Your task to perform on an android device: turn pop-ups on in chrome Image 0: 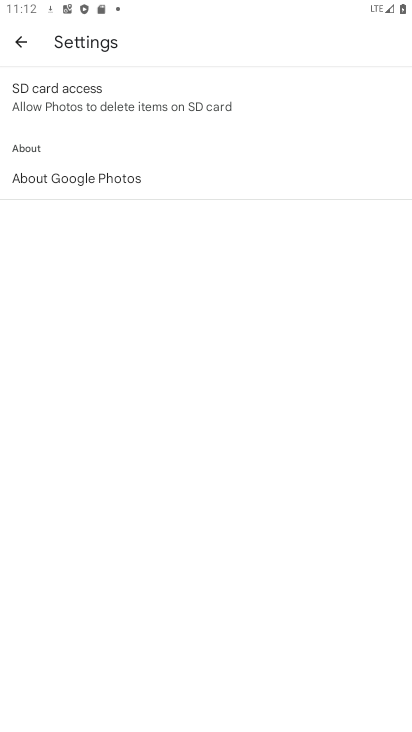
Step 0: press home button
Your task to perform on an android device: turn pop-ups on in chrome Image 1: 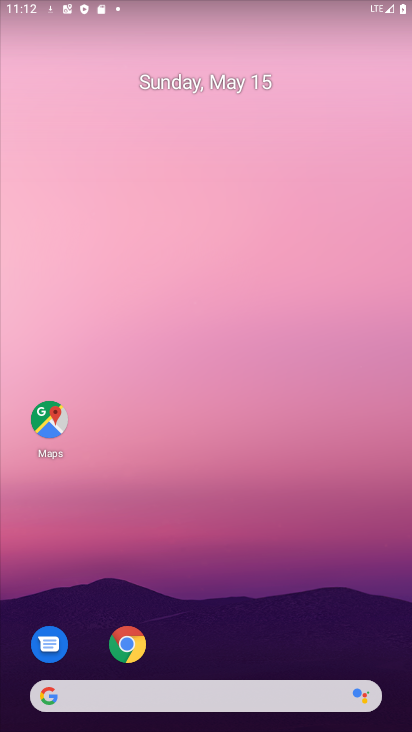
Step 1: drag from (186, 717) to (184, 329)
Your task to perform on an android device: turn pop-ups on in chrome Image 2: 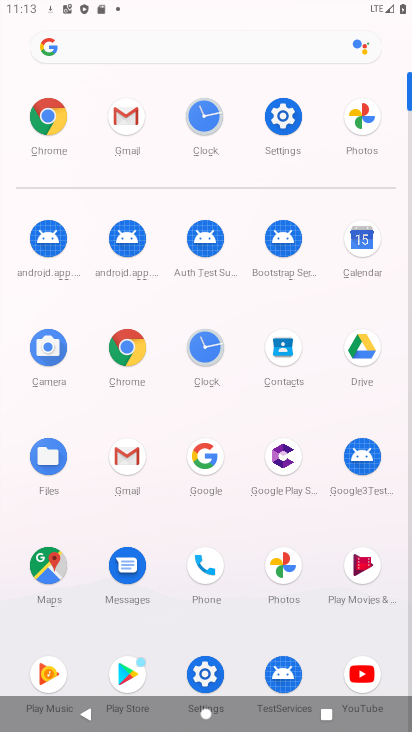
Step 2: click (129, 350)
Your task to perform on an android device: turn pop-ups on in chrome Image 3: 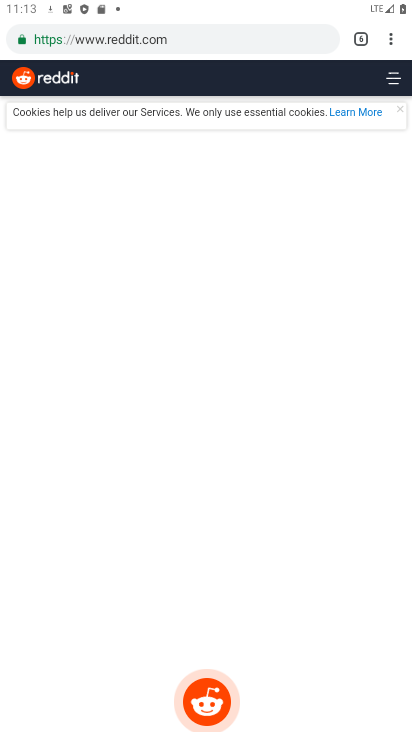
Step 3: click (397, 40)
Your task to perform on an android device: turn pop-ups on in chrome Image 4: 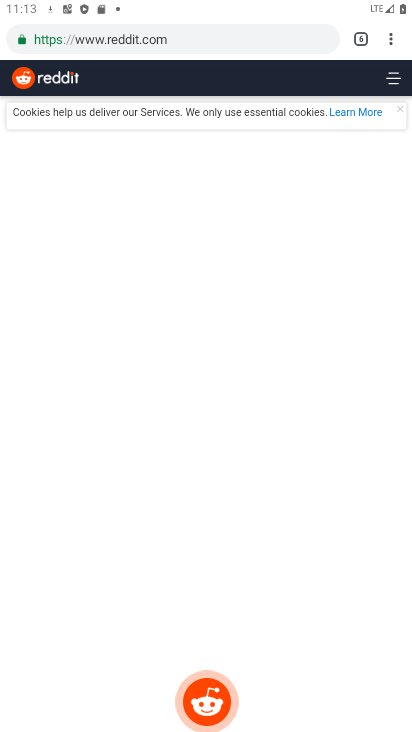
Step 4: click (385, 50)
Your task to perform on an android device: turn pop-ups on in chrome Image 5: 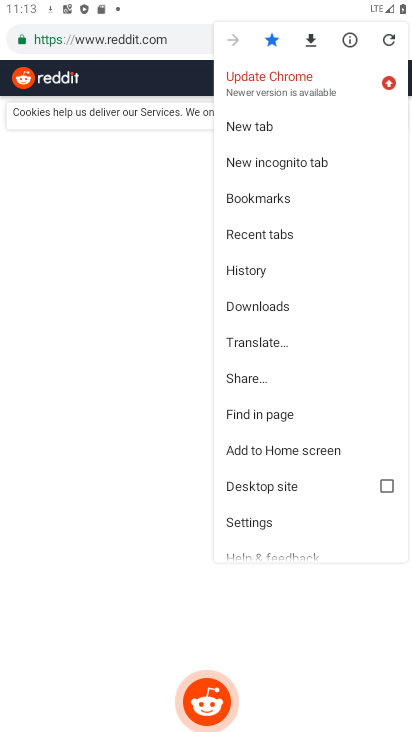
Step 5: click (261, 519)
Your task to perform on an android device: turn pop-ups on in chrome Image 6: 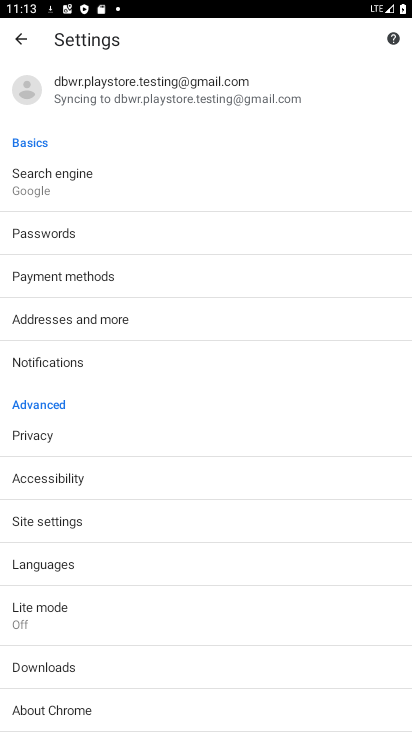
Step 6: click (88, 521)
Your task to perform on an android device: turn pop-ups on in chrome Image 7: 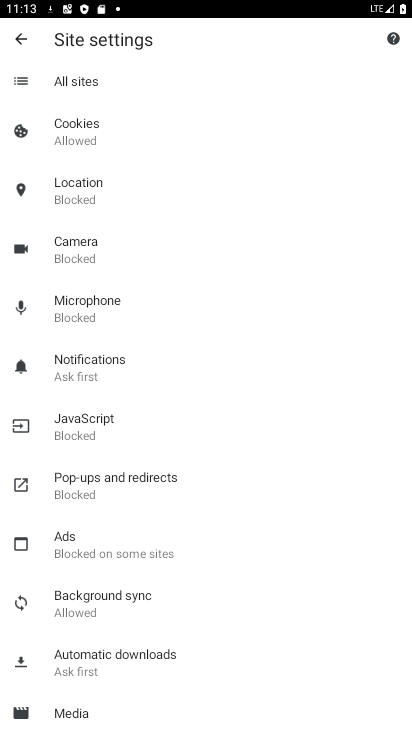
Step 7: click (121, 483)
Your task to perform on an android device: turn pop-ups on in chrome Image 8: 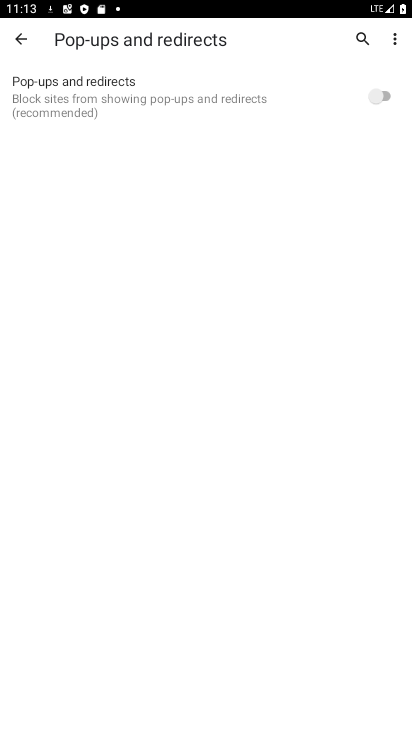
Step 8: click (378, 92)
Your task to perform on an android device: turn pop-ups on in chrome Image 9: 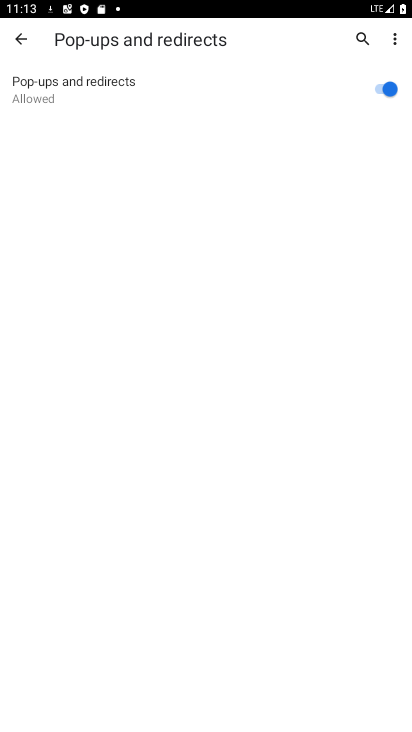
Step 9: task complete